Your task to perform on an android device: open sync settings in chrome Image 0: 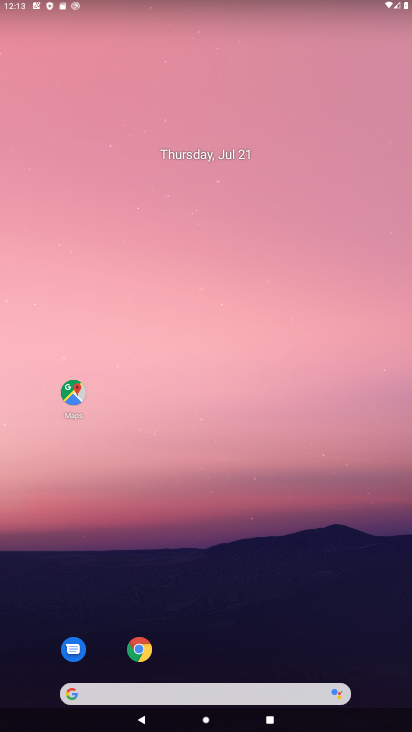
Step 0: click (140, 651)
Your task to perform on an android device: open sync settings in chrome Image 1: 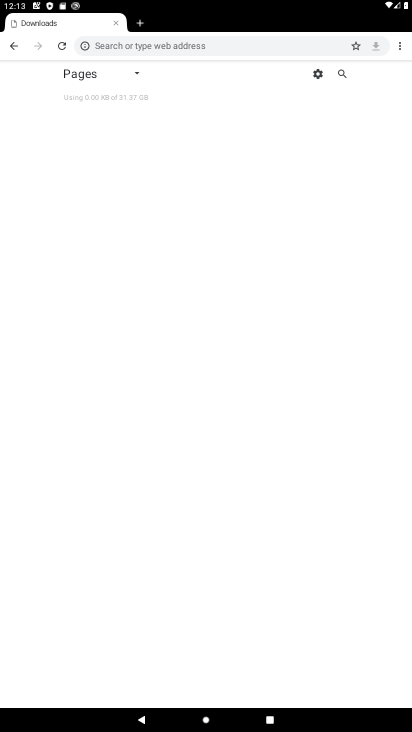
Step 1: click (400, 50)
Your task to perform on an android device: open sync settings in chrome Image 2: 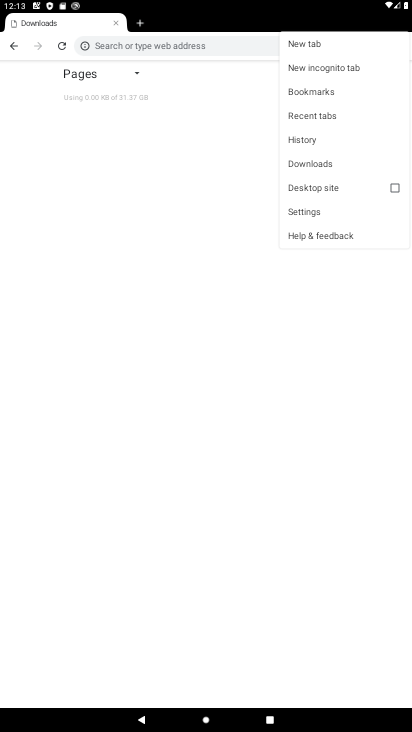
Step 2: click (310, 209)
Your task to perform on an android device: open sync settings in chrome Image 3: 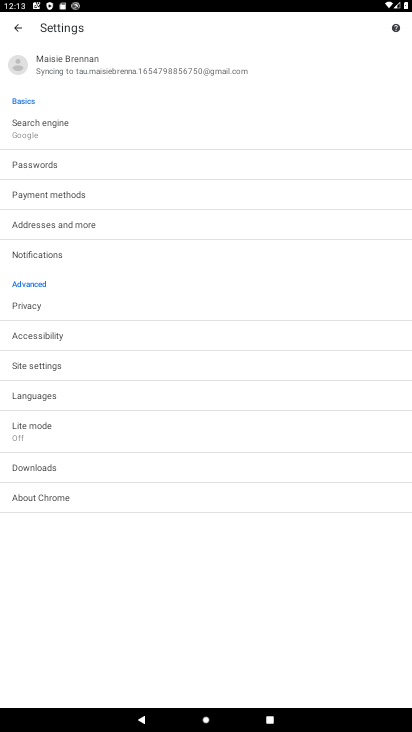
Step 3: click (65, 61)
Your task to perform on an android device: open sync settings in chrome Image 4: 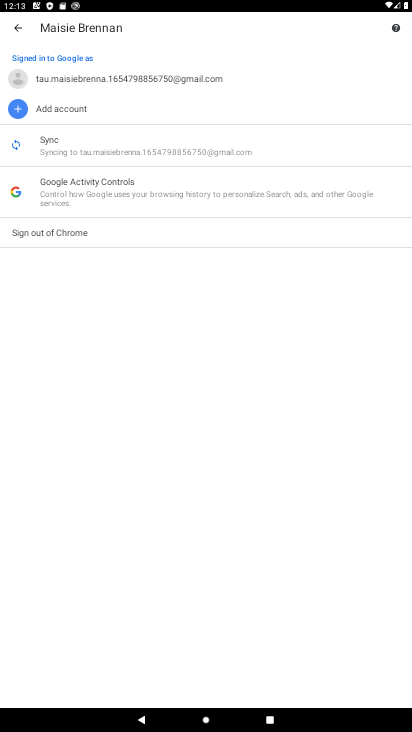
Step 4: click (54, 131)
Your task to perform on an android device: open sync settings in chrome Image 5: 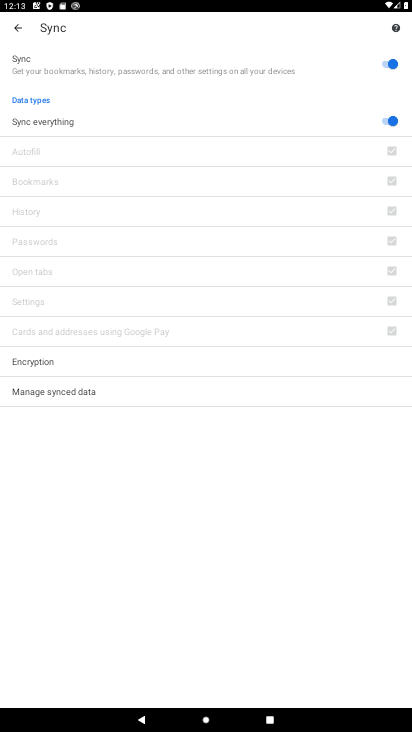
Step 5: task complete